Your task to perform on an android device: Search for flights from Tokyo to Mexico city Image 0: 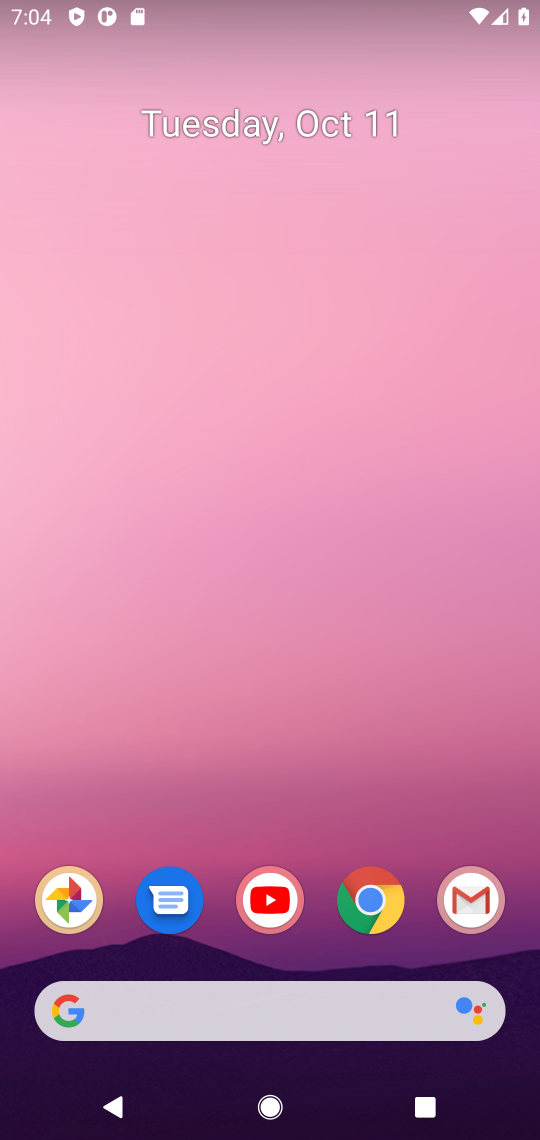
Step 0: click (372, 905)
Your task to perform on an android device: Search for flights from Tokyo to Mexico city Image 1: 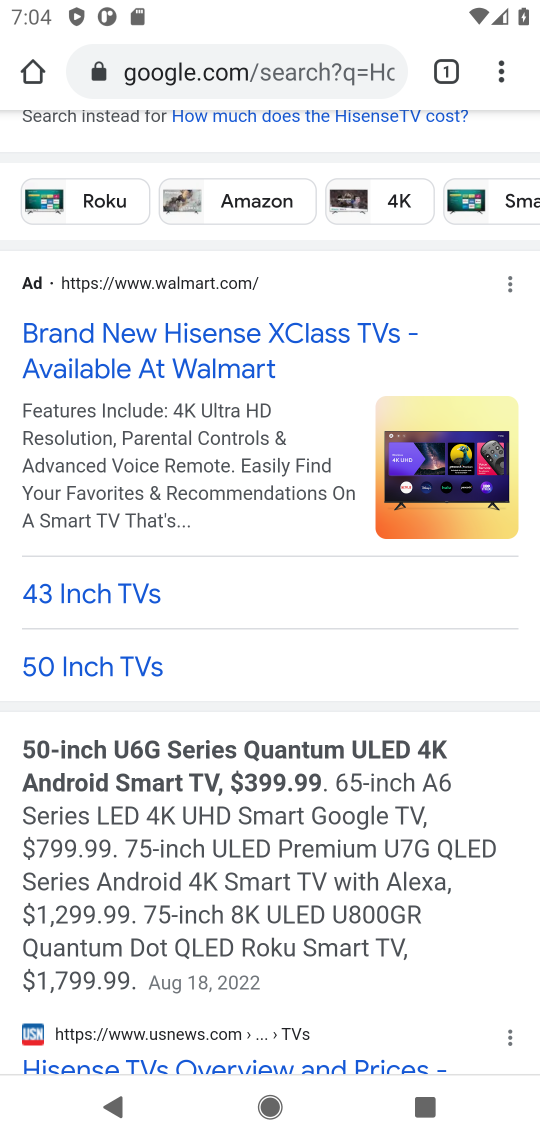
Step 1: click (304, 76)
Your task to perform on an android device: Search for flights from Tokyo to Mexico city Image 2: 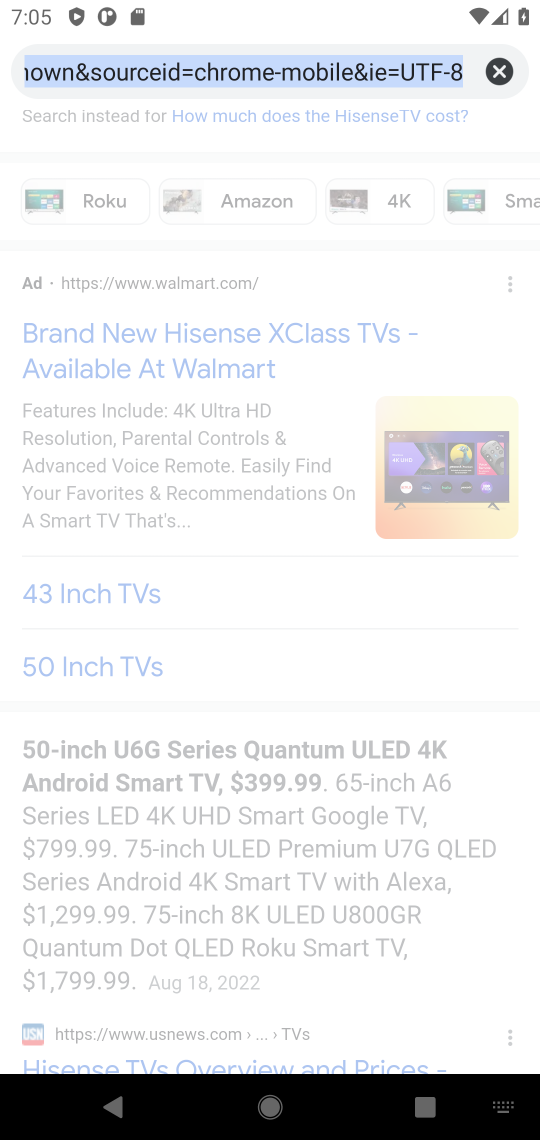
Step 2: type "flights from Tokyo to Mexico city"
Your task to perform on an android device: Search for flights from Tokyo to Mexico city Image 3: 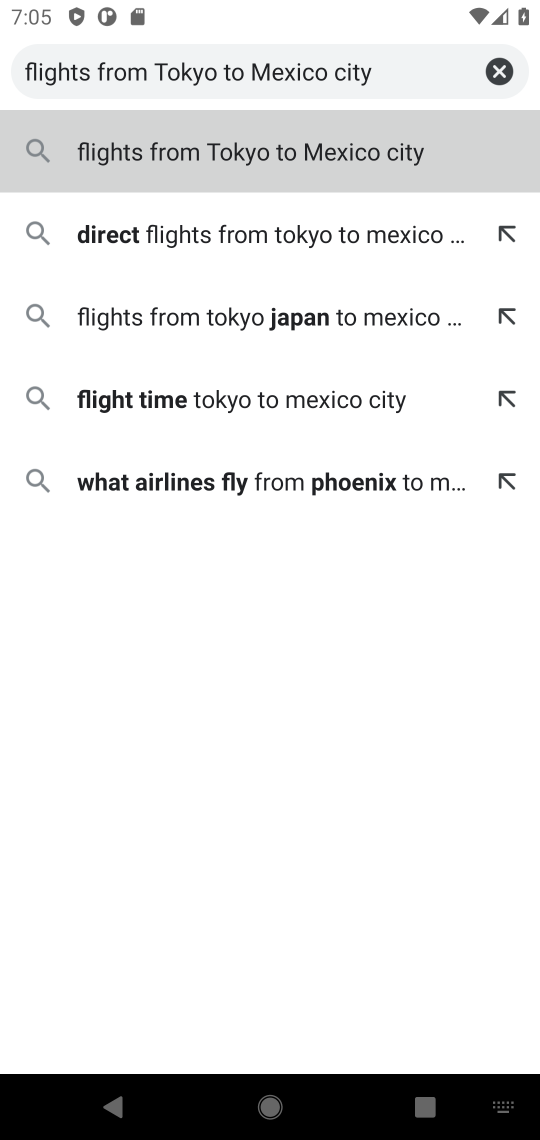
Step 3: click (361, 141)
Your task to perform on an android device: Search for flights from Tokyo to Mexico city Image 4: 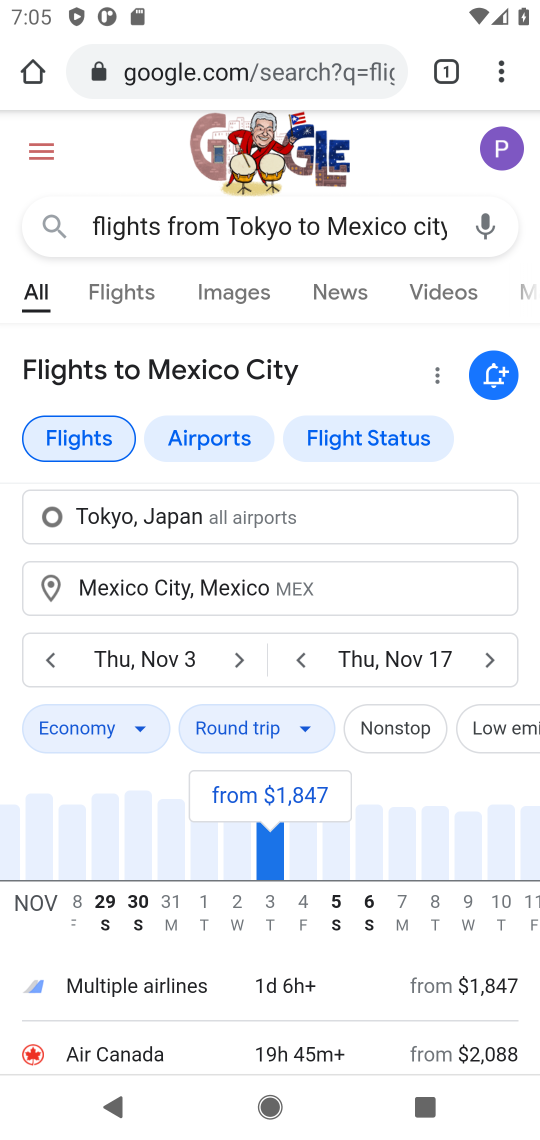
Step 4: task complete